Your task to perform on an android device: Go to battery settings Image 0: 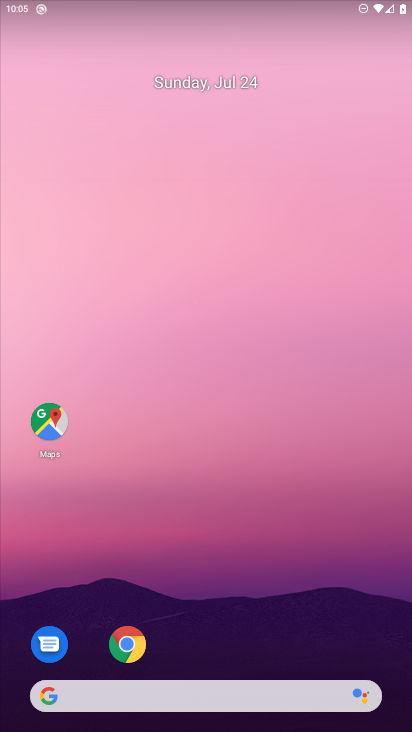
Step 0: click (225, 655)
Your task to perform on an android device: Go to battery settings Image 1: 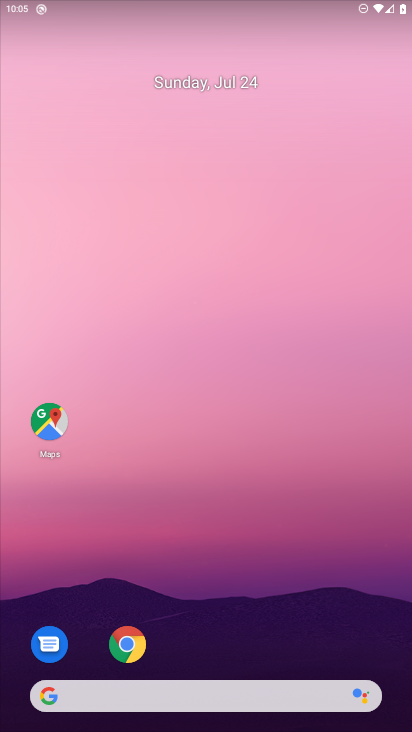
Step 1: drag from (180, 646) to (172, 270)
Your task to perform on an android device: Go to battery settings Image 2: 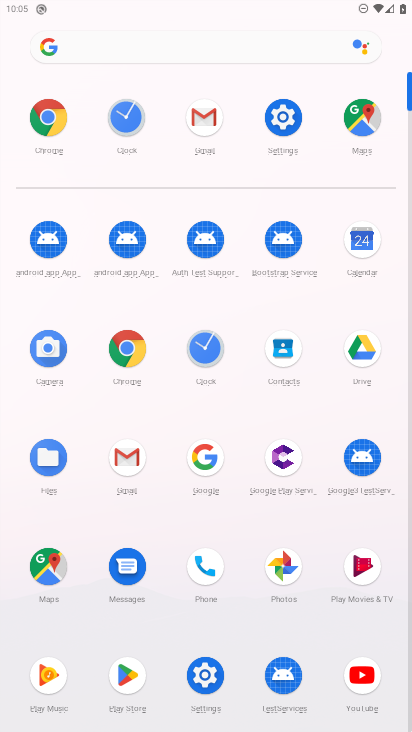
Step 2: click (287, 113)
Your task to perform on an android device: Go to battery settings Image 3: 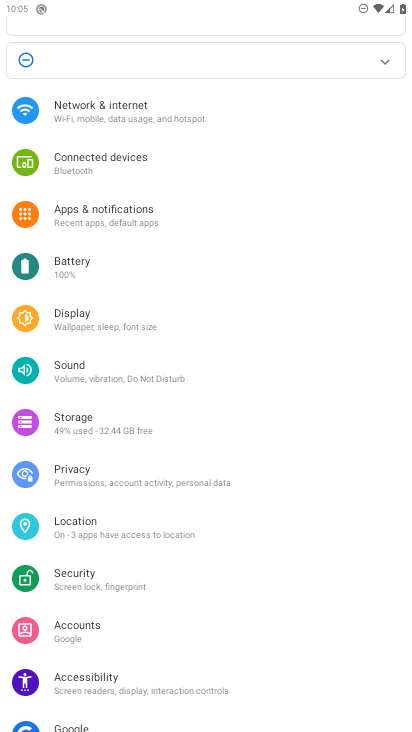
Step 3: click (75, 263)
Your task to perform on an android device: Go to battery settings Image 4: 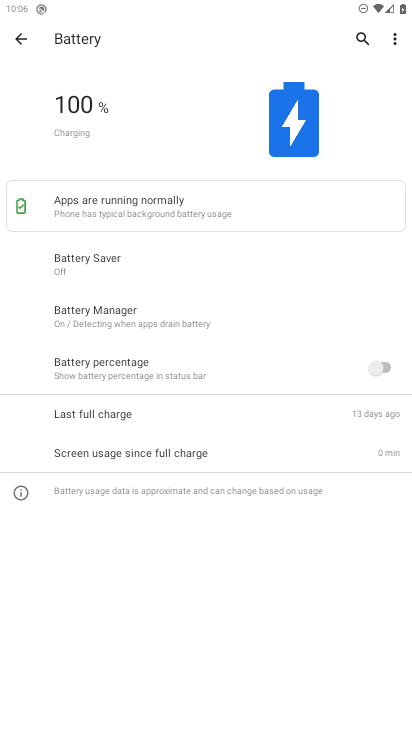
Step 4: task complete